Your task to perform on an android device: turn off notifications settings in the gmail app Image 0: 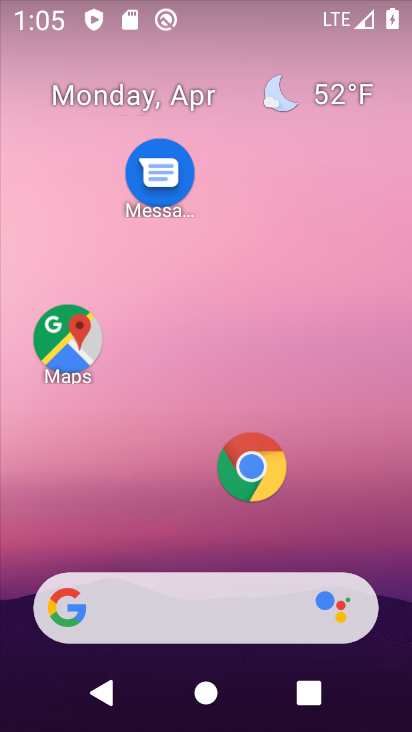
Step 0: drag from (211, 545) to (224, 132)
Your task to perform on an android device: turn off notifications settings in the gmail app Image 1: 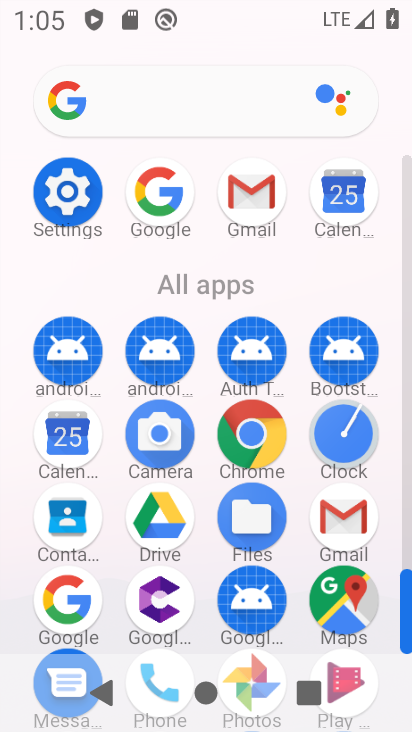
Step 1: click (235, 177)
Your task to perform on an android device: turn off notifications settings in the gmail app Image 2: 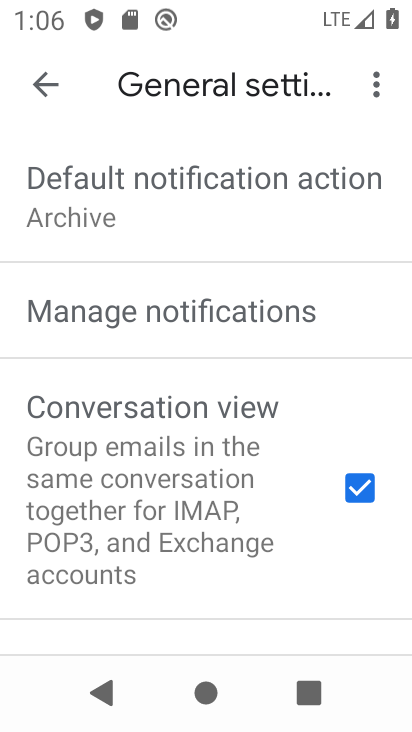
Step 2: drag from (263, 362) to (208, 347)
Your task to perform on an android device: turn off notifications settings in the gmail app Image 3: 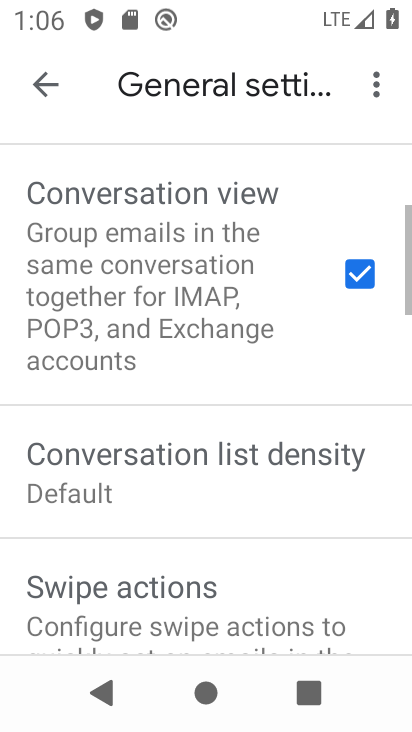
Step 3: click (46, 88)
Your task to perform on an android device: turn off notifications settings in the gmail app Image 4: 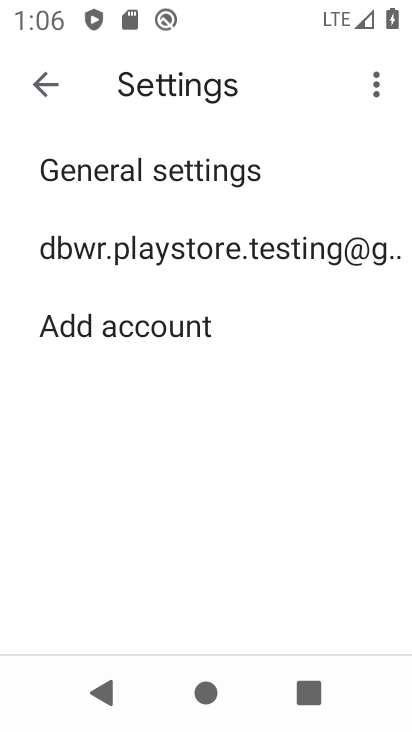
Step 4: click (182, 250)
Your task to perform on an android device: turn off notifications settings in the gmail app Image 5: 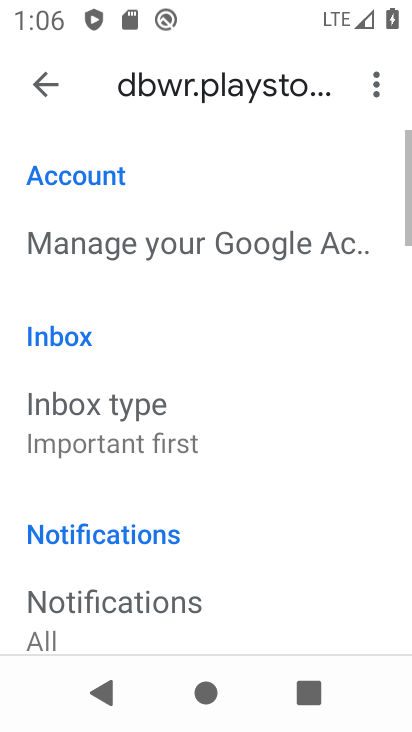
Step 5: drag from (222, 560) to (241, 212)
Your task to perform on an android device: turn off notifications settings in the gmail app Image 6: 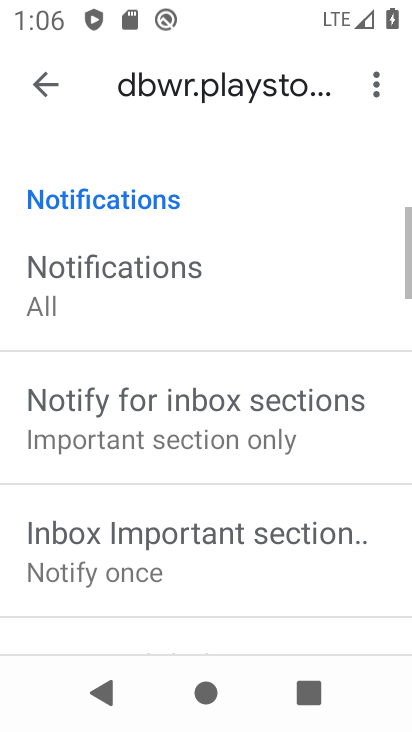
Step 6: drag from (146, 582) to (189, 312)
Your task to perform on an android device: turn off notifications settings in the gmail app Image 7: 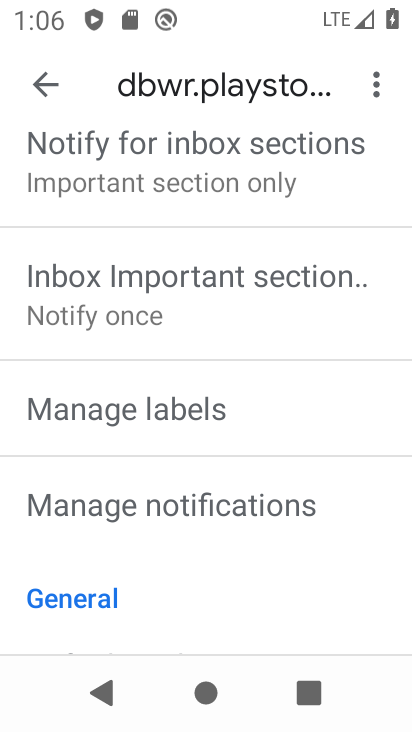
Step 7: click (176, 508)
Your task to perform on an android device: turn off notifications settings in the gmail app Image 8: 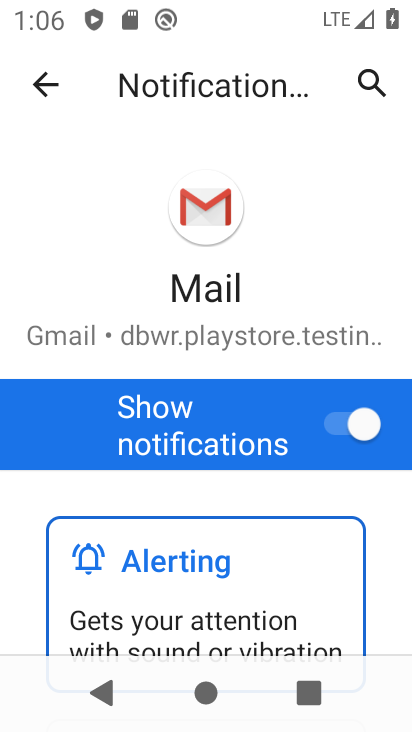
Step 8: click (333, 425)
Your task to perform on an android device: turn off notifications settings in the gmail app Image 9: 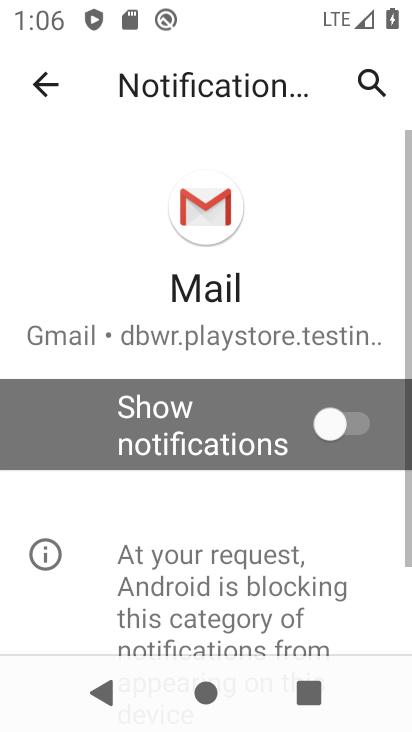
Step 9: task complete